Your task to perform on an android device: What is the recent news? Image 0: 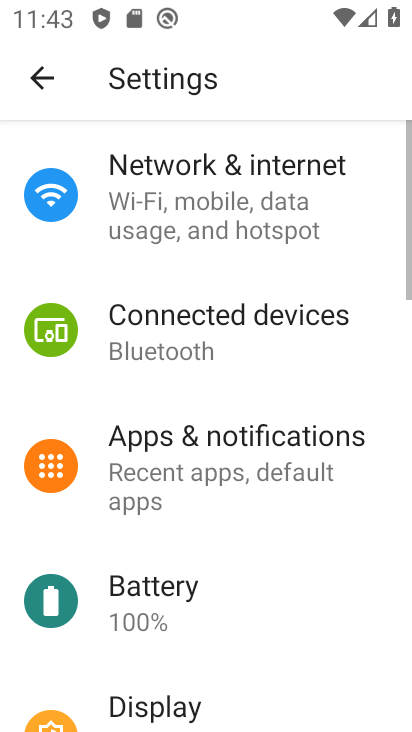
Step 0: press home button
Your task to perform on an android device: What is the recent news? Image 1: 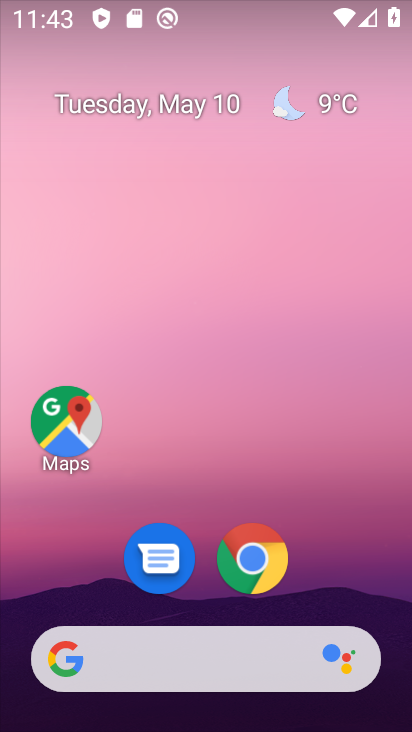
Step 1: drag from (360, 573) to (366, 181)
Your task to perform on an android device: What is the recent news? Image 2: 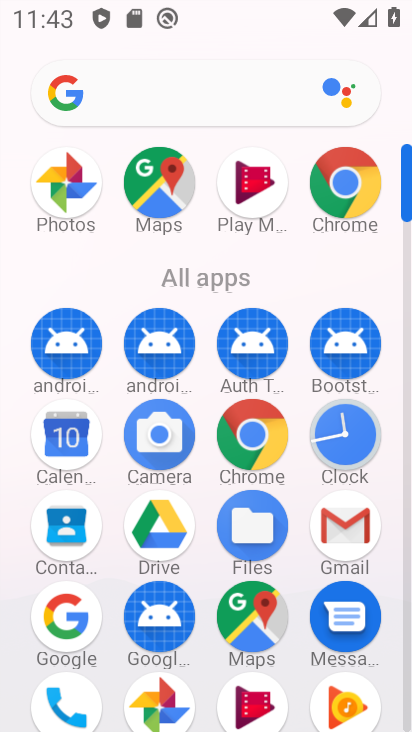
Step 2: click (351, 179)
Your task to perform on an android device: What is the recent news? Image 3: 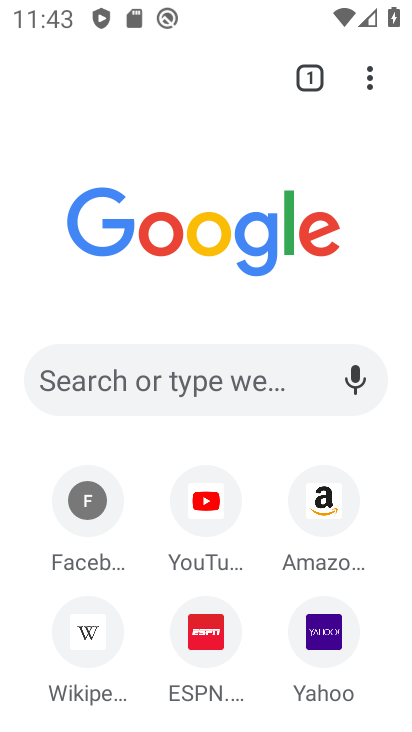
Step 3: click (220, 386)
Your task to perform on an android device: What is the recent news? Image 4: 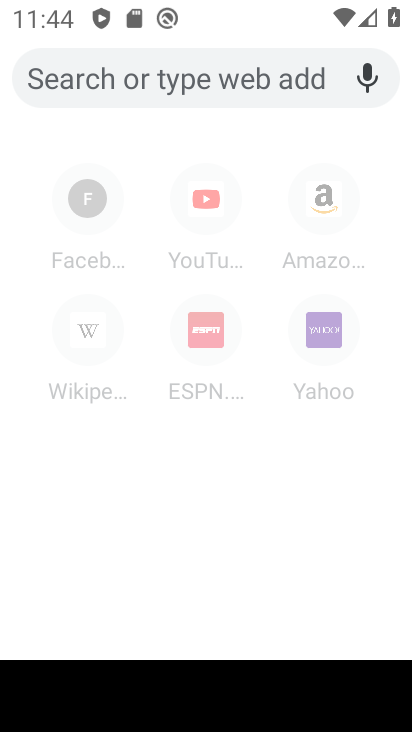
Step 4: type "what is the recent news"
Your task to perform on an android device: What is the recent news? Image 5: 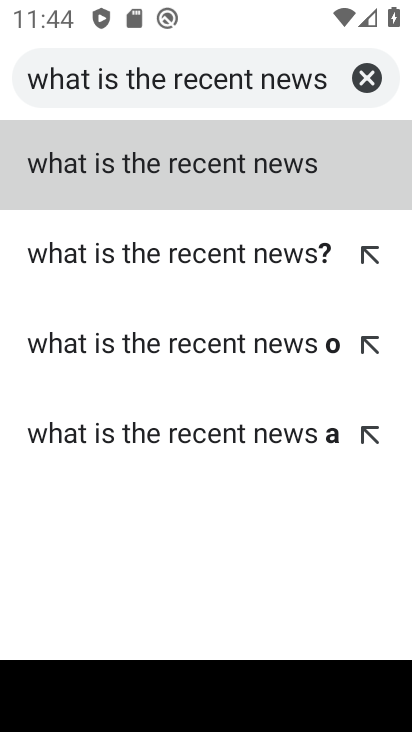
Step 5: click (249, 181)
Your task to perform on an android device: What is the recent news? Image 6: 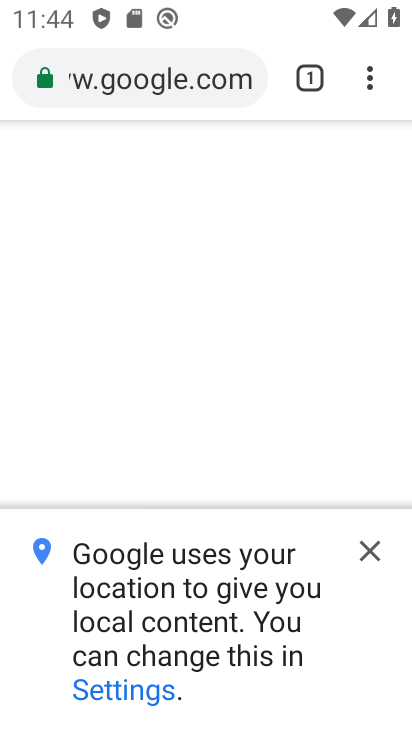
Step 6: click (362, 546)
Your task to perform on an android device: What is the recent news? Image 7: 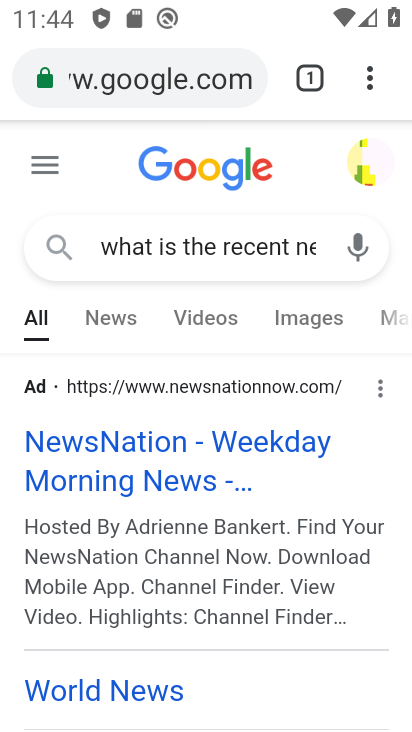
Step 7: task complete